Your task to perform on an android device: Open Google Maps and go to "Timeline" Image 0: 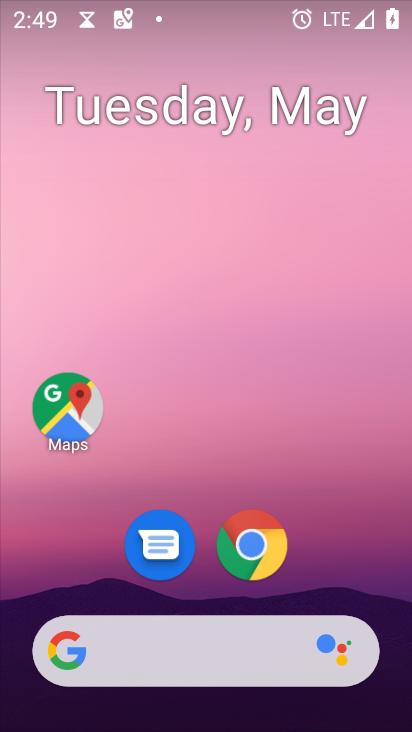
Step 0: drag from (362, 564) to (243, 40)
Your task to perform on an android device: Open Google Maps and go to "Timeline" Image 1: 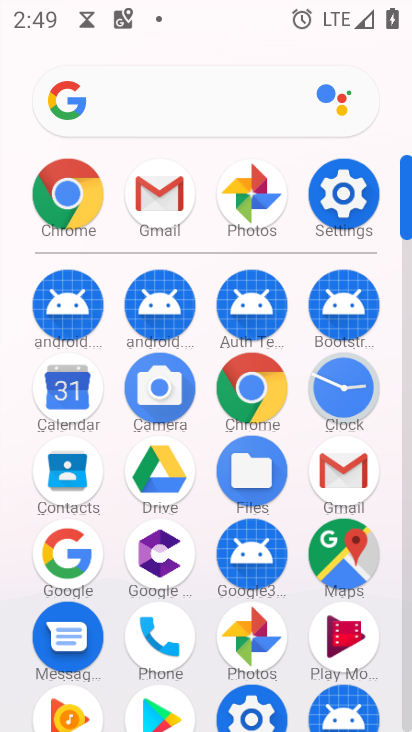
Step 1: drag from (6, 515) to (29, 207)
Your task to perform on an android device: Open Google Maps and go to "Timeline" Image 2: 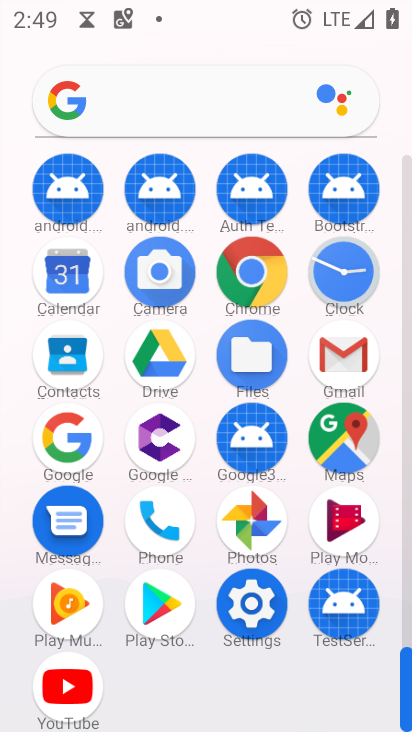
Step 2: click (335, 430)
Your task to perform on an android device: Open Google Maps and go to "Timeline" Image 3: 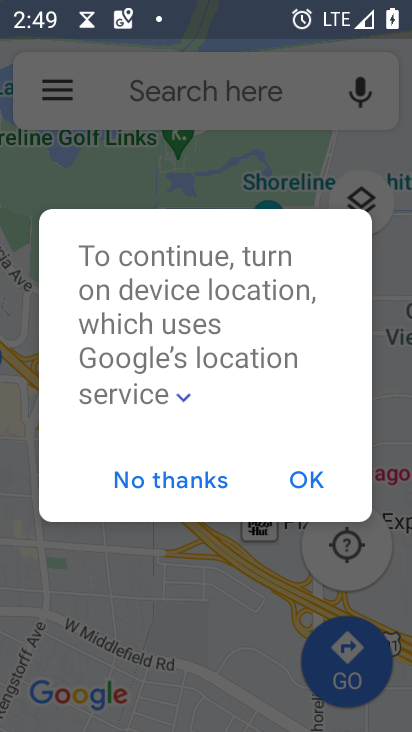
Step 3: click (66, 80)
Your task to perform on an android device: Open Google Maps and go to "Timeline" Image 4: 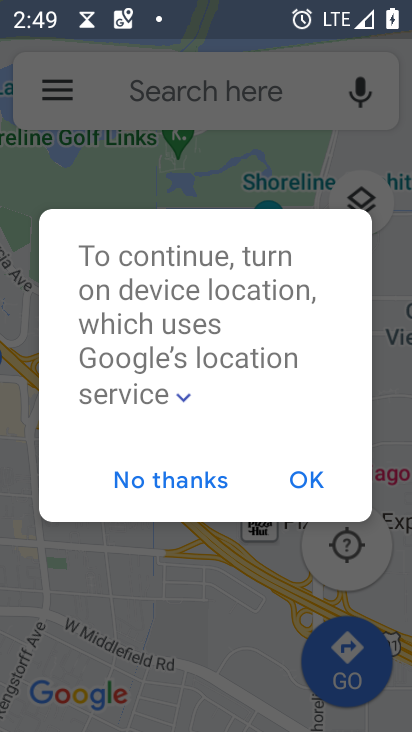
Step 4: click (307, 472)
Your task to perform on an android device: Open Google Maps and go to "Timeline" Image 5: 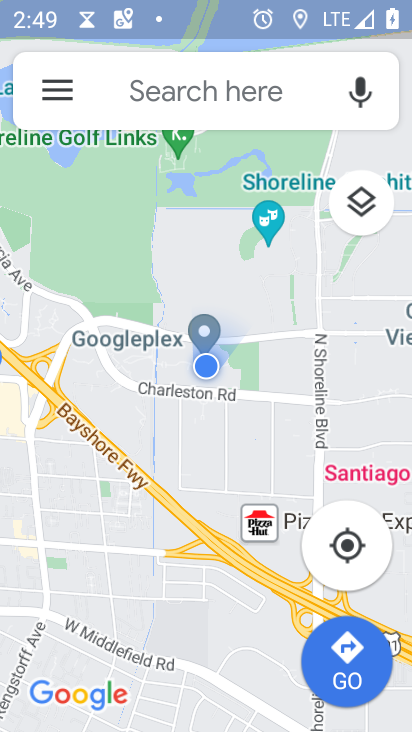
Step 5: click (50, 76)
Your task to perform on an android device: Open Google Maps and go to "Timeline" Image 6: 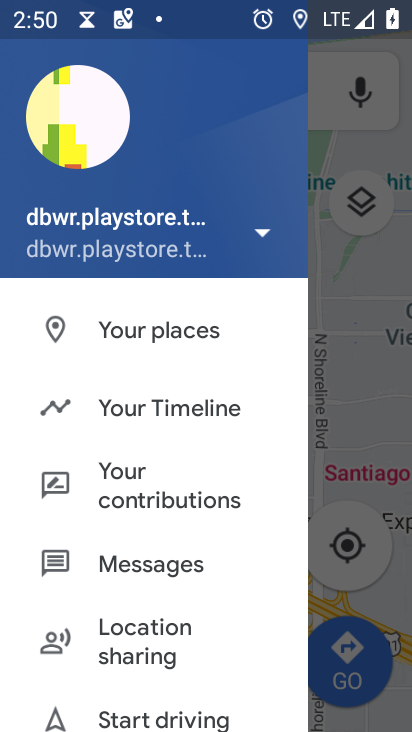
Step 6: click (156, 407)
Your task to perform on an android device: Open Google Maps and go to "Timeline" Image 7: 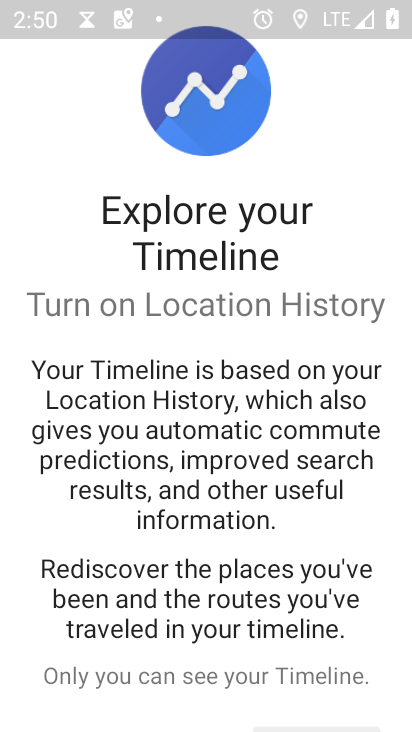
Step 7: drag from (332, 643) to (282, 194)
Your task to perform on an android device: Open Google Maps and go to "Timeline" Image 8: 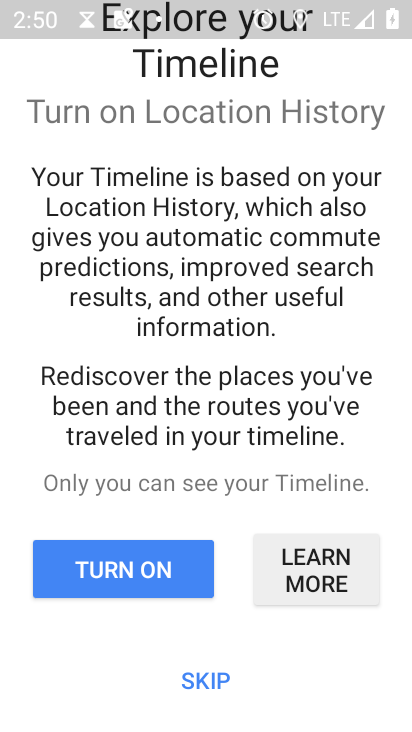
Step 8: click (124, 569)
Your task to perform on an android device: Open Google Maps and go to "Timeline" Image 9: 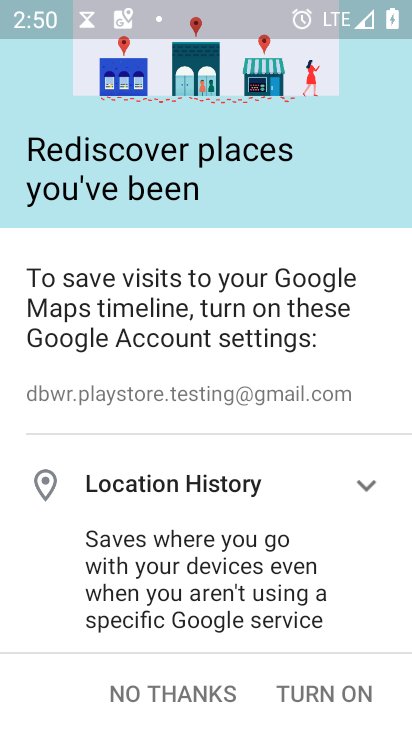
Step 9: click (310, 694)
Your task to perform on an android device: Open Google Maps and go to "Timeline" Image 10: 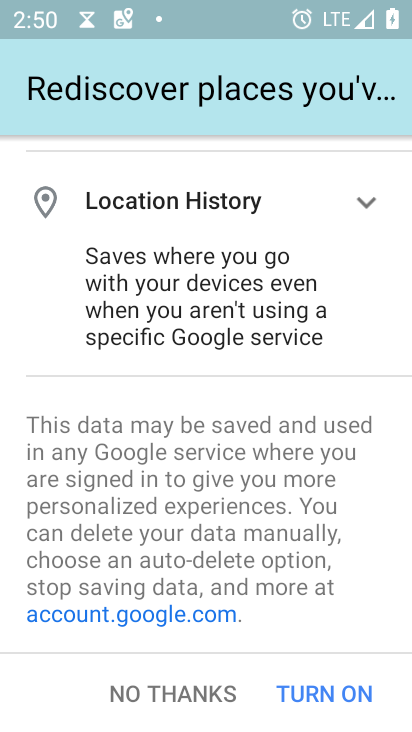
Step 10: click (310, 694)
Your task to perform on an android device: Open Google Maps and go to "Timeline" Image 11: 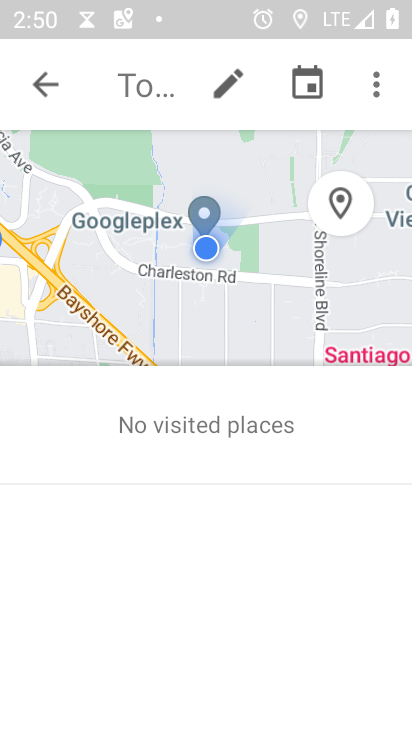
Step 11: task complete